Your task to perform on an android device: Open the Play Movies app and select the watchlist tab. Image 0: 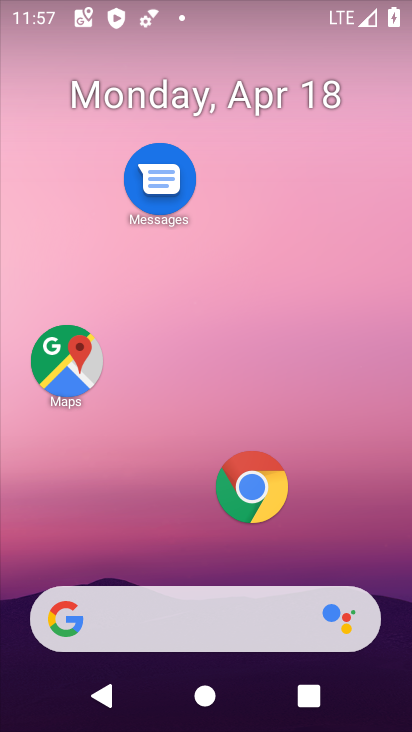
Step 0: drag from (190, 490) to (138, 0)
Your task to perform on an android device: Open the Play Movies app and select the watchlist tab. Image 1: 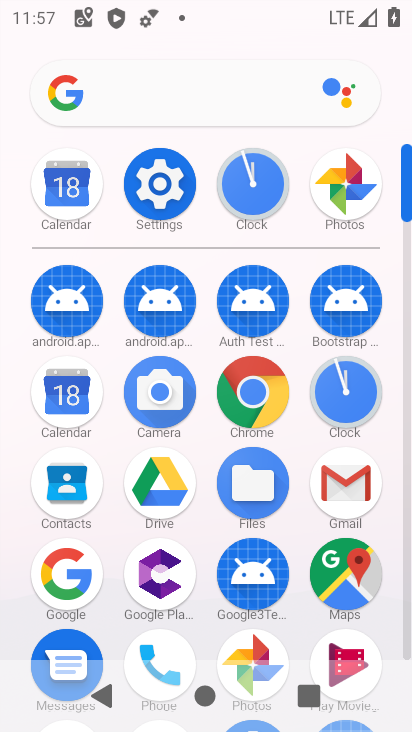
Step 1: drag from (189, 595) to (132, 126)
Your task to perform on an android device: Open the Play Movies app and select the watchlist tab. Image 2: 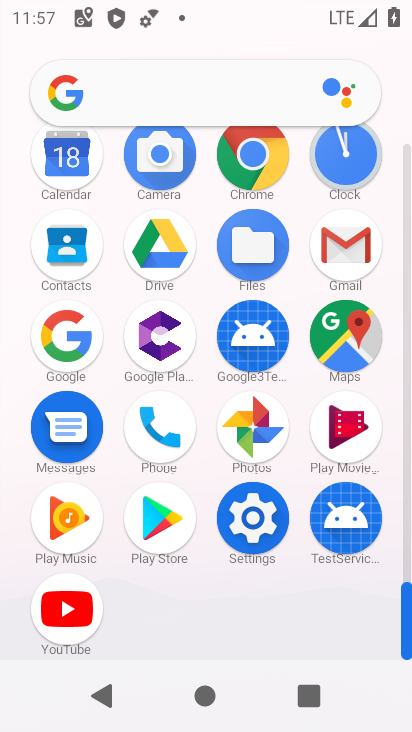
Step 2: click (327, 428)
Your task to perform on an android device: Open the Play Movies app and select the watchlist tab. Image 3: 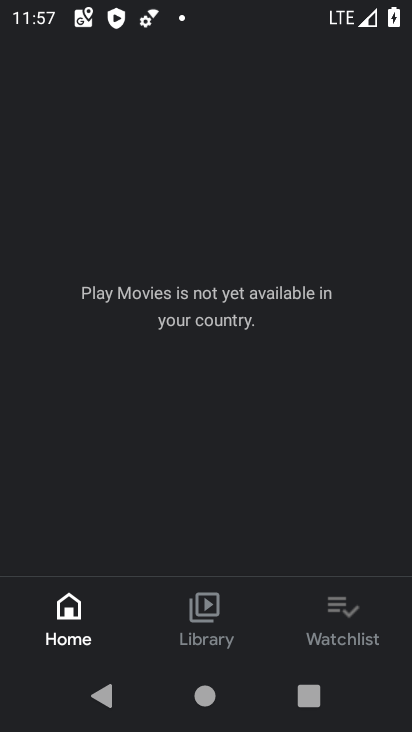
Step 3: click (335, 611)
Your task to perform on an android device: Open the Play Movies app and select the watchlist tab. Image 4: 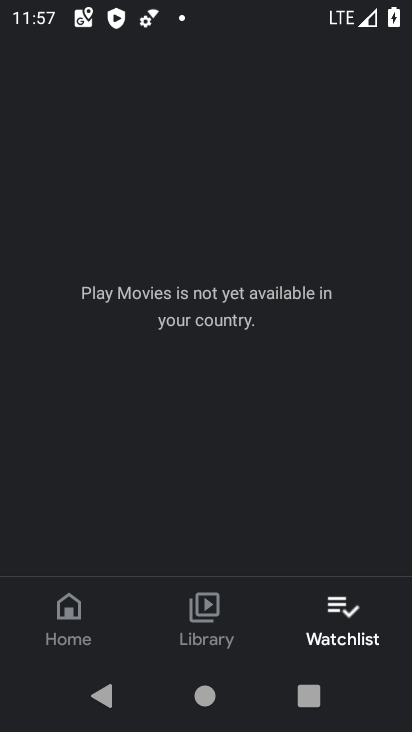
Step 4: task complete